Your task to perform on an android device: Open Reddit.com Image 0: 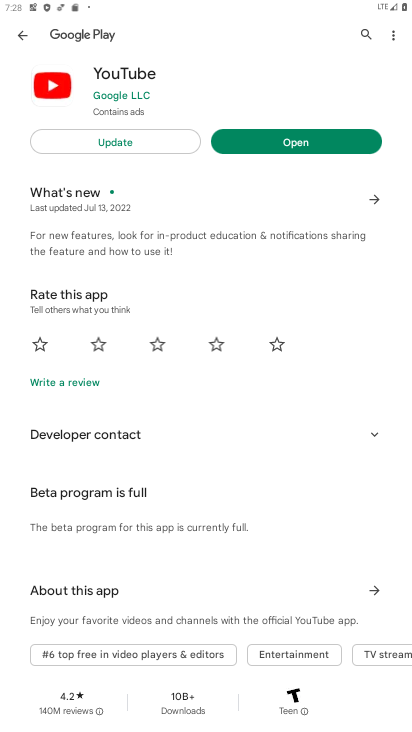
Step 0: press home button
Your task to perform on an android device: Open Reddit.com Image 1: 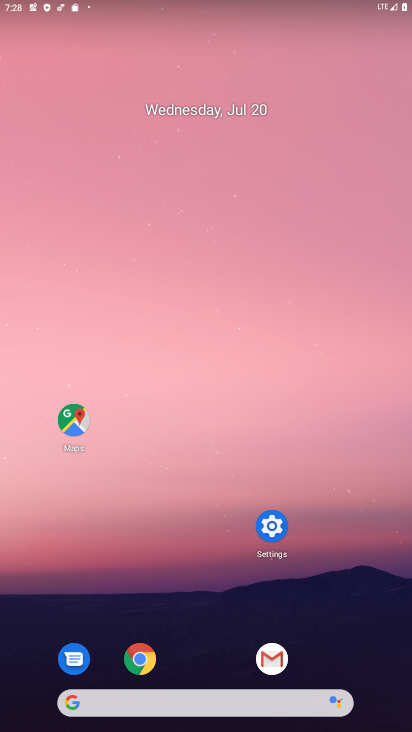
Step 1: click (144, 653)
Your task to perform on an android device: Open Reddit.com Image 2: 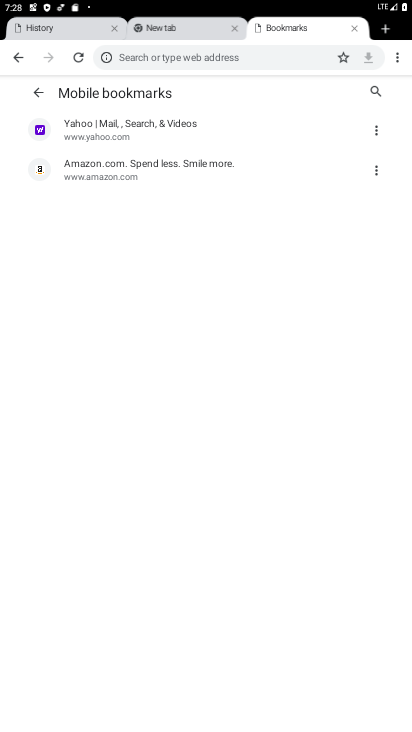
Step 2: click (165, 25)
Your task to perform on an android device: Open Reddit.com Image 3: 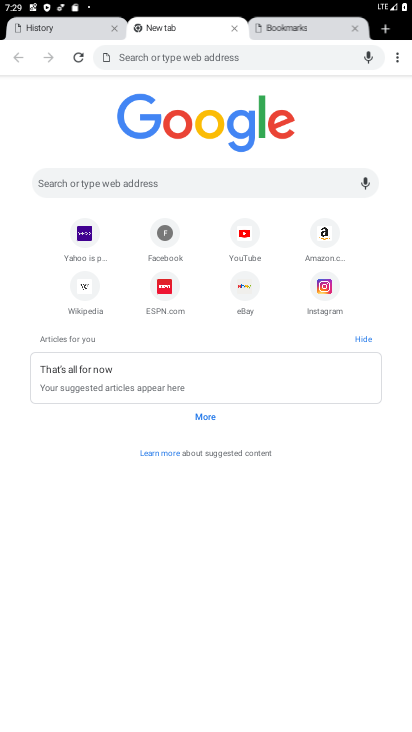
Step 3: click (165, 25)
Your task to perform on an android device: Open Reddit.com Image 4: 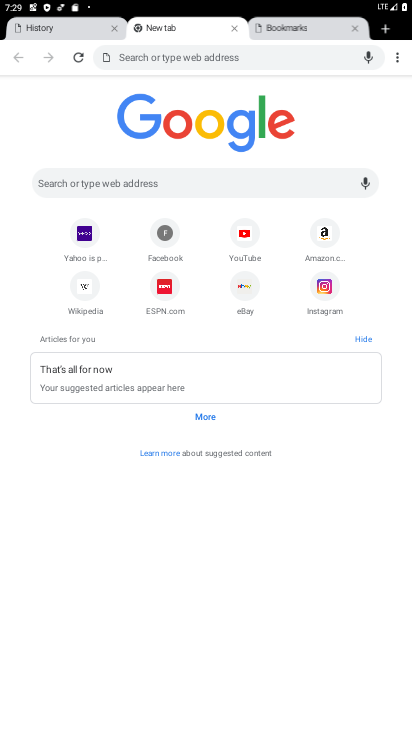
Step 4: click (137, 185)
Your task to perform on an android device: Open Reddit.com Image 5: 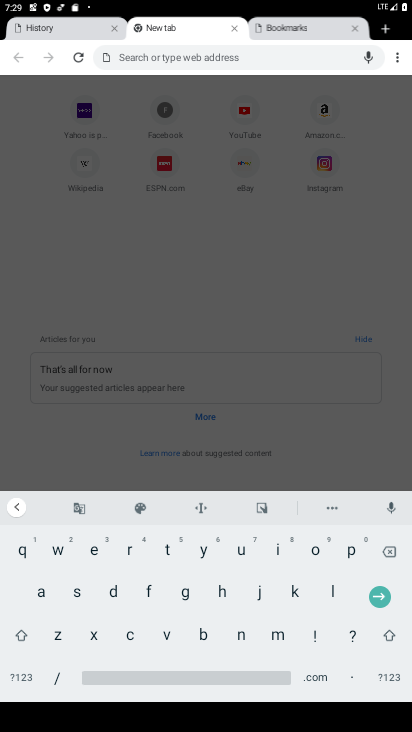
Step 5: click (130, 547)
Your task to perform on an android device: Open Reddit.com Image 6: 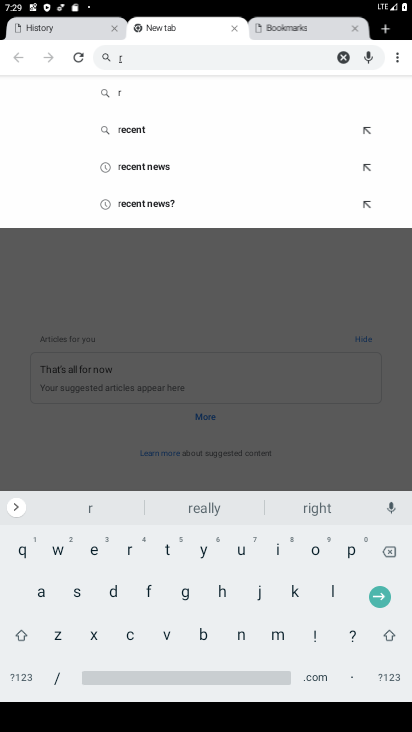
Step 6: click (92, 548)
Your task to perform on an android device: Open Reddit.com Image 7: 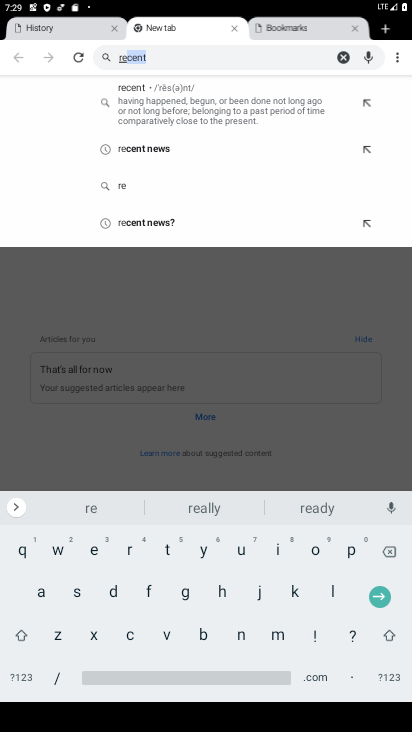
Step 7: click (111, 590)
Your task to perform on an android device: Open Reddit.com Image 8: 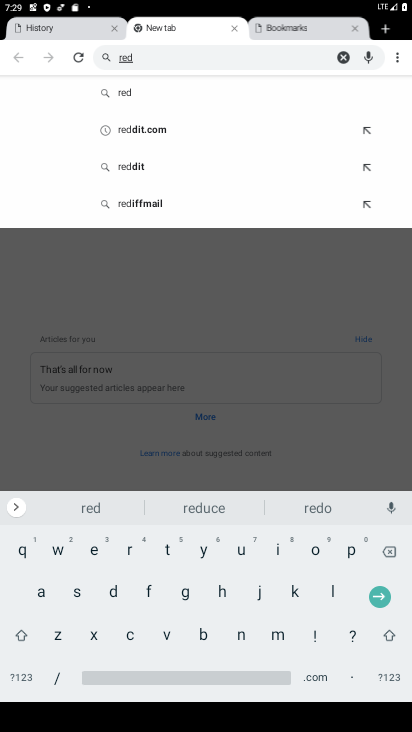
Step 8: click (142, 132)
Your task to perform on an android device: Open Reddit.com Image 9: 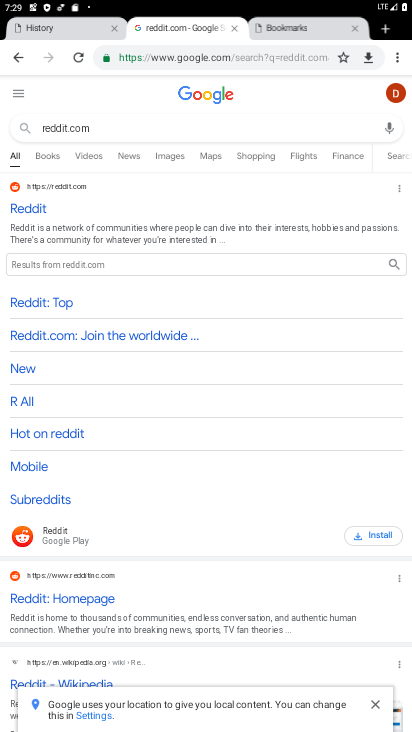
Step 9: click (38, 221)
Your task to perform on an android device: Open Reddit.com Image 10: 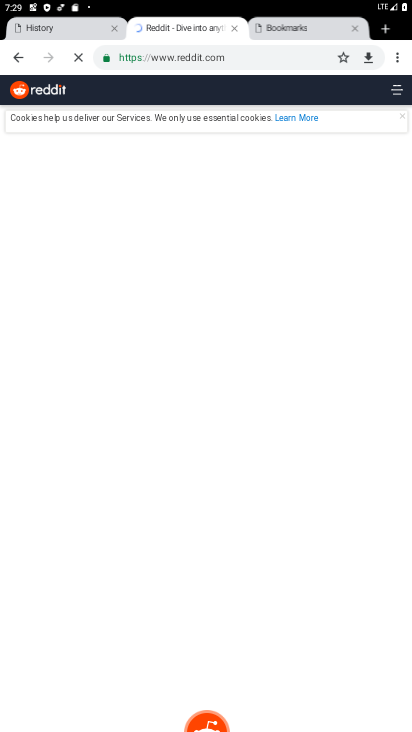
Step 10: task complete